Your task to perform on an android device: Go to accessibility settings Image 0: 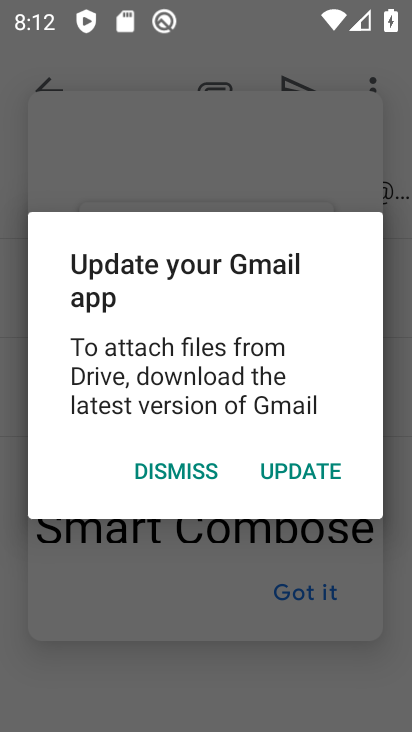
Step 0: press home button
Your task to perform on an android device: Go to accessibility settings Image 1: 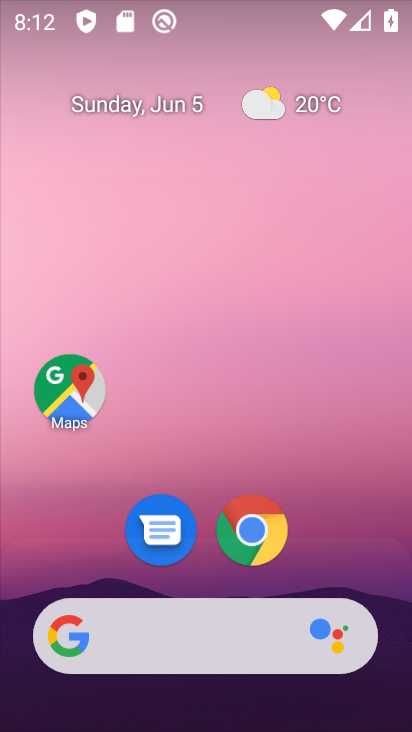
Step 1: drag from (391, 629) to (327, 31)
Your task to perform on an android device: Go to accessibility settings Image 2: 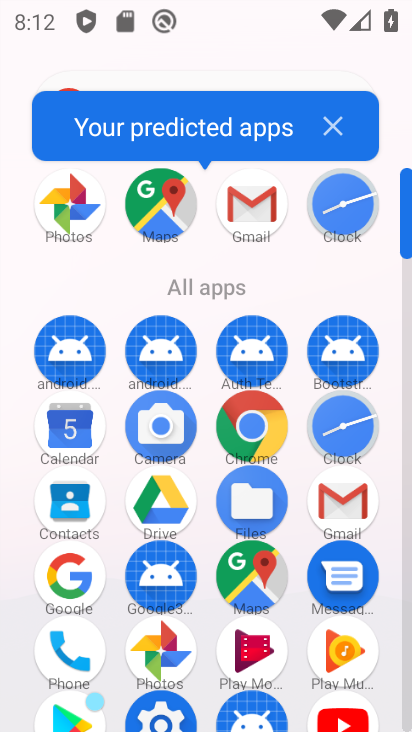
Step 2: click (407, 699)
Your task to perform on an android device: Go to accessibility settings Image 3: 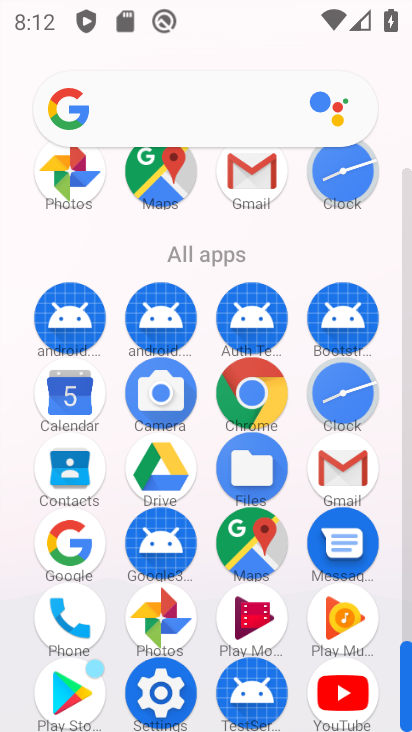
Step 3: click (163, 695)
Your task to perform on an android device: Go to accessibility settings Image 4: 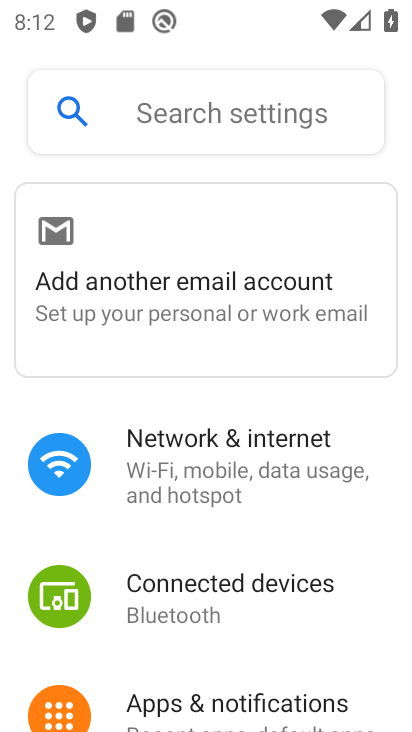
Step 4: drag from (346, 670) to (345, 264)
Your task to perform on an android device: Go to accessibility settings Image 5: 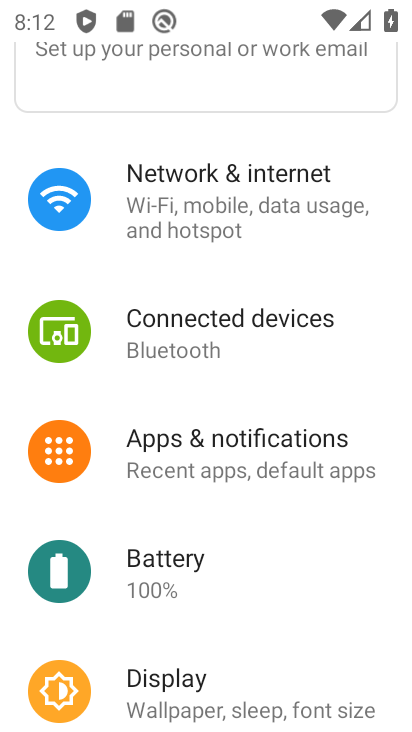
Step 5: drag from (359, 665) to (331, 96)
Your task to perform on an android device: Go to accessibility settings Image 6: 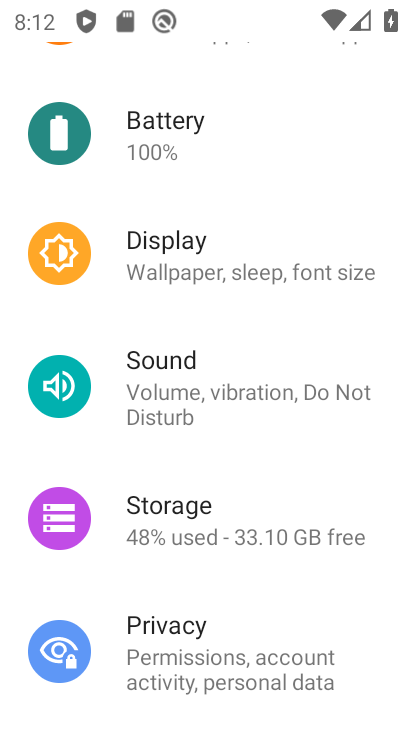
Step 6: drag from (352, 642) to (343, 216)
Your task to perform on an android device: Go to accessibility settings Image 7: 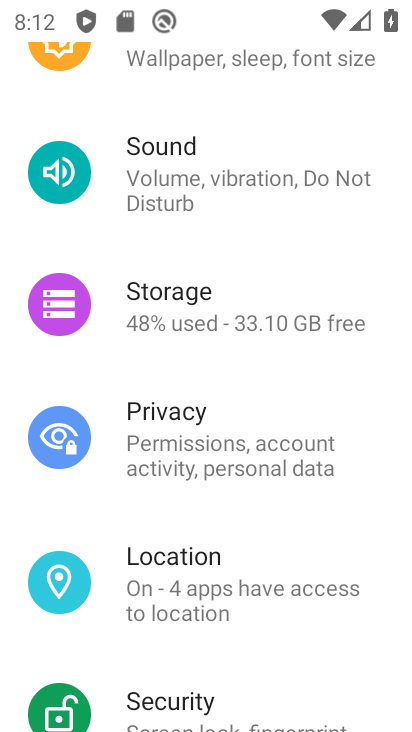
Step 7: drag from (365, 661) to (325, 112)
Your task to perform on an android device: Go to accessibility settings Image 8: 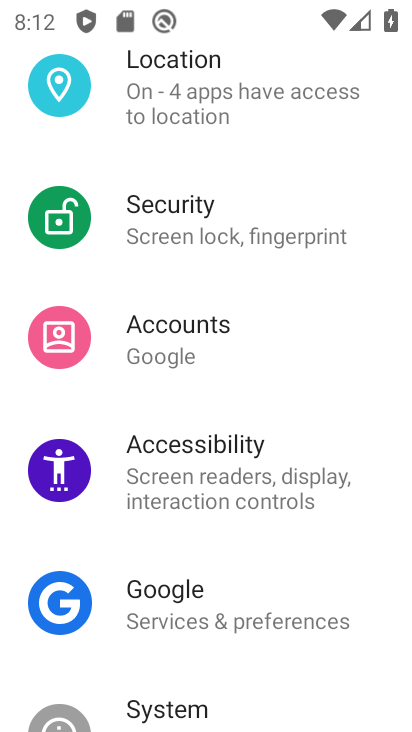
Step 8: click (149, 470)
Your task to perform on an android device: Go to accessibility settings Image 9: 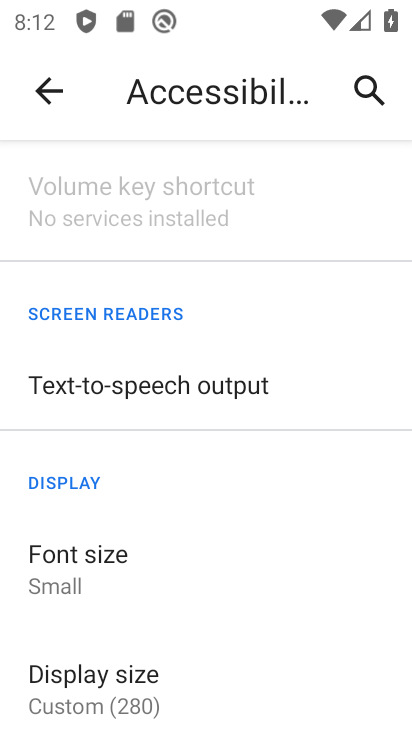
Step 9: click (246, 196)
Your task to perform on an android device: Go to accessibility settings Image 10: 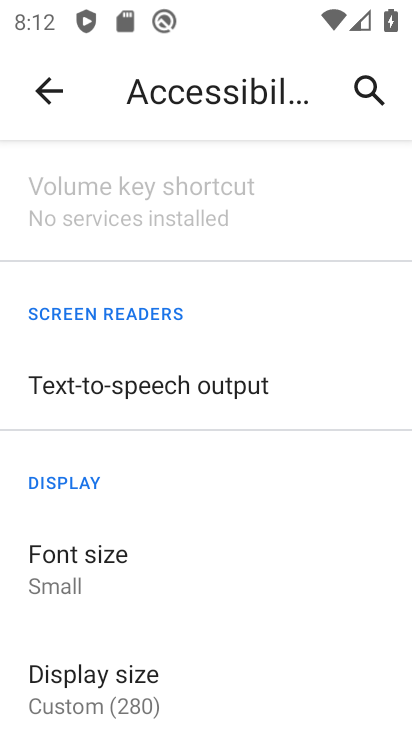
Step 10: task complete